Your task to perform on an android device: turn pop-ups on in chrome Image 0: 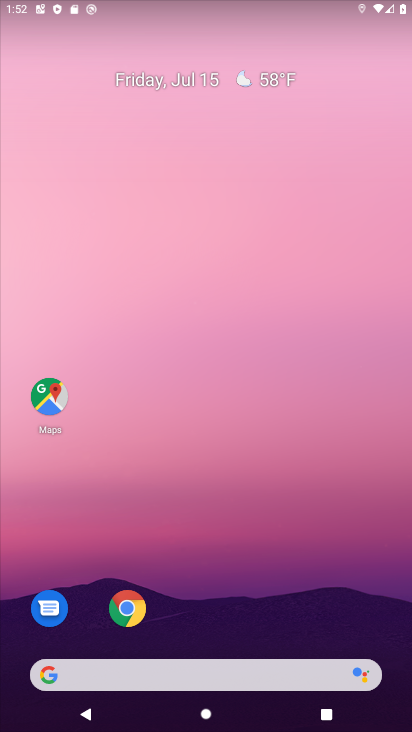
Step 0: drag from (229, 589) to (250, 123)
Your task to perform on an android device: turn pop-ups on in chrome Image 1: 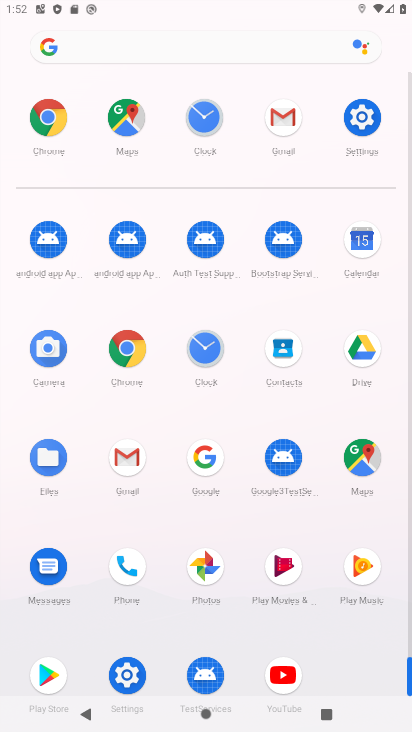
Step 1: click (137, 344)
Your task to perform on an android device: turn pop-ups on in chrome Image 2: 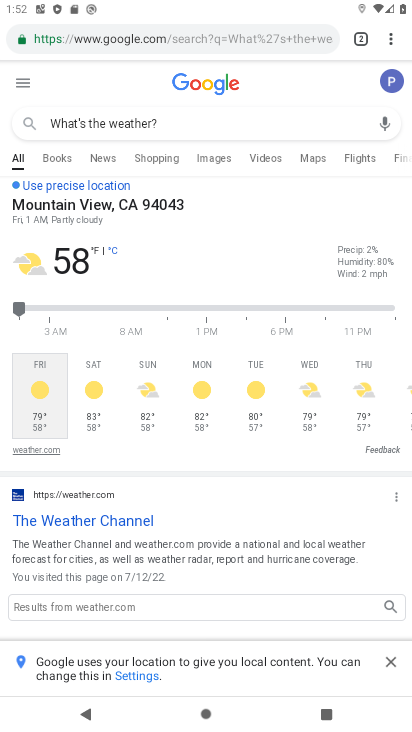
Step 2: drag from (391, 41) to (248, 438)
Your task to perform on an android device: turn pop-ups on in chrome Image 3: 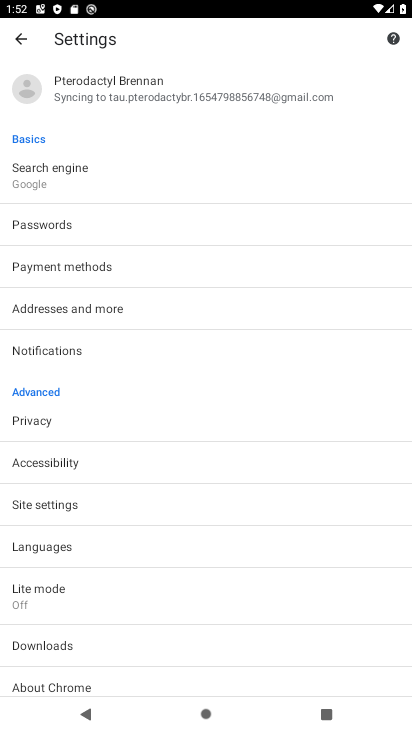
Step 3: click (64, 496)
Your task to perform on an android device: turn pop-ups on in chrome Image 4: 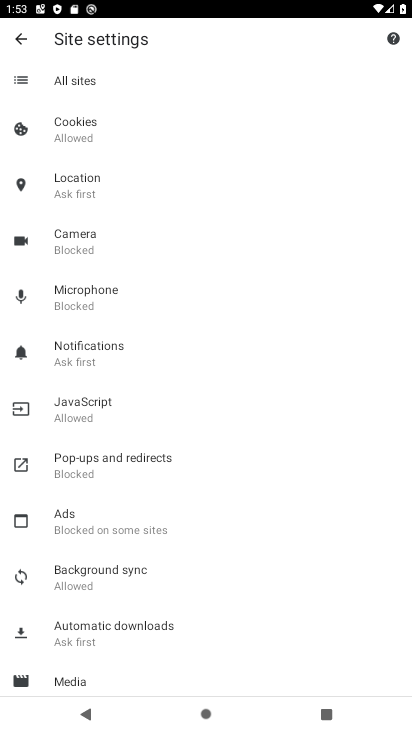
Step 4: click (117, 454)
Your task to perform on an android device: turn pop-ups on in chrome Image 5: 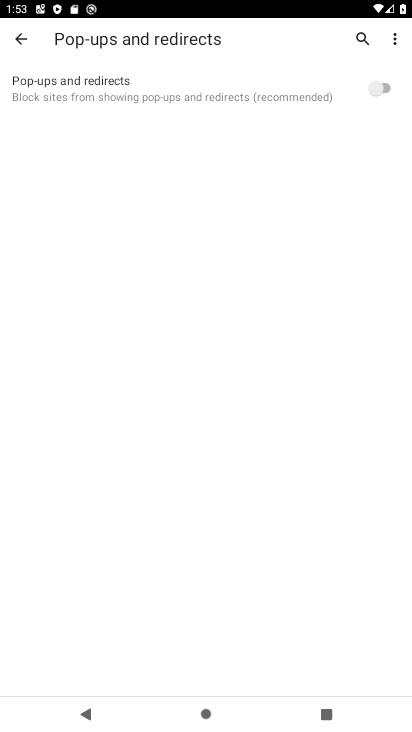
Step 5: click (318, 89)
Your task to perform on an android device: turn pop-ups on in chrome Image 6: 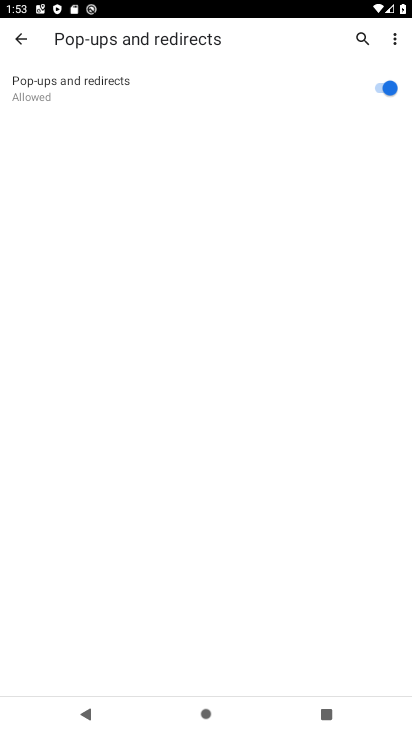
Step 6: task complete